Your task to perform on an android device: Open Youtube and go to the subscriptions tab Image 0: 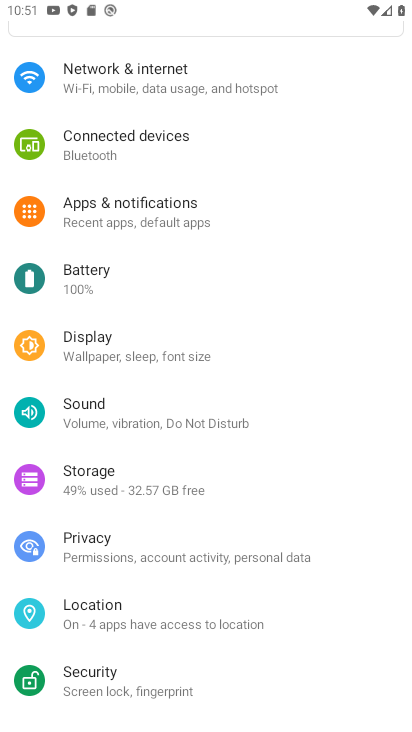
Step 0: press home button
Your task to perform on an android device: Open Youtube and go to the subscriptions tab Image 1: 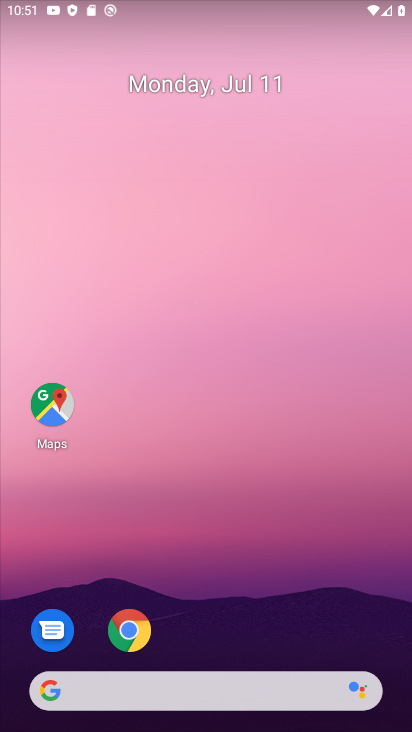
Step 1: drag from (200, 629) to (203, 3)
Your task to perform on an android device: Open Youtube and go to the subscriptions tab Image 2: 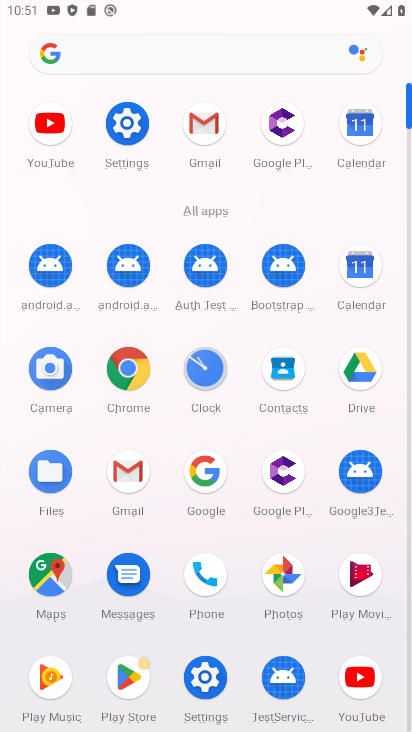
Step 2: click (362, 684)
Your task to perform on an android device: Open Youtube and go to the subscriptions tab Image 3: 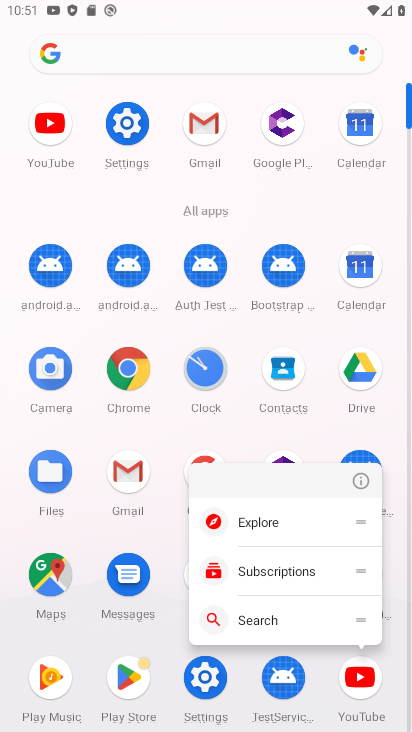
Step 3: click (363, 685)
Your task to perform on an android device: Open Youtube and go to the subscriptions tab Image 4: 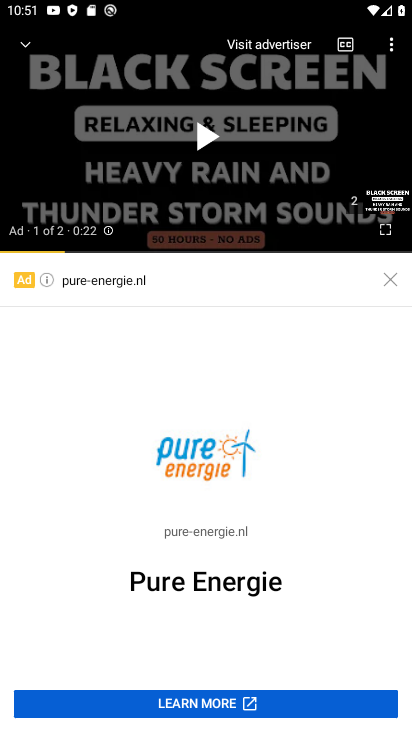
Step 4: click (25, 41)
Your task to perform on an android device: Open Youtube and go to the subscriptions tab Image 5: 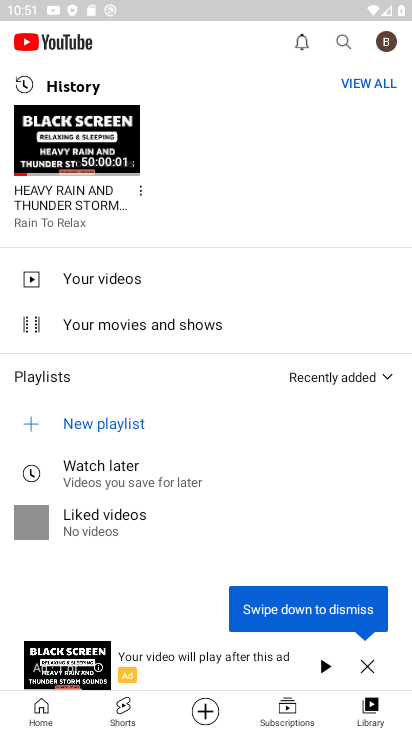
Step 5: click (370, 660)
Your task to perform on an android device: Open Youtube and go to the subscriptions tab Image 6: 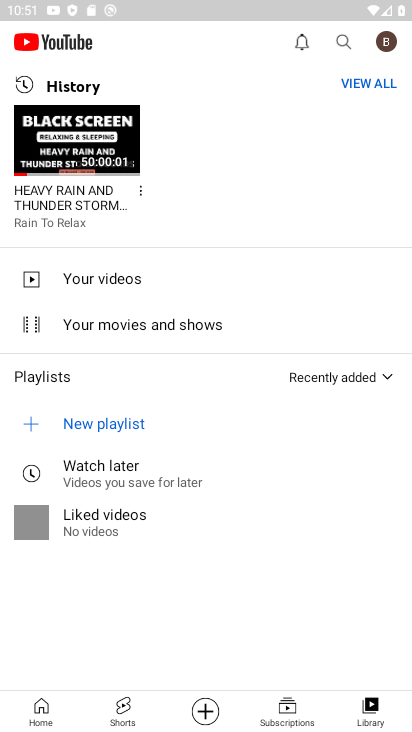
Step 6: click (285, 715)
Your task to perform on an android device: Open Youtube and go to the subscriptions tab Image 7: 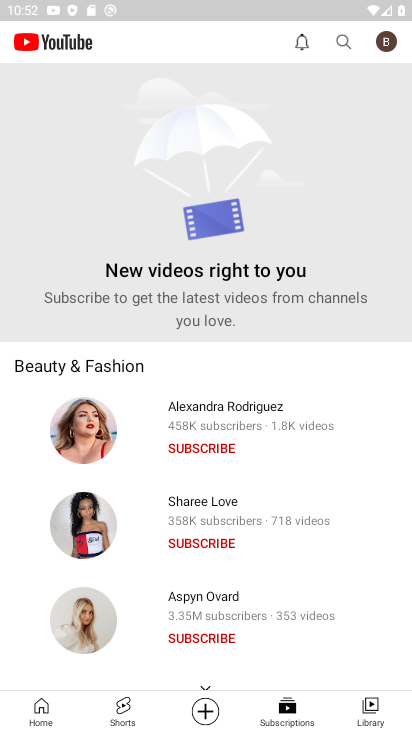
Step 7: task complete